Your task to perform on an android device: Open display settings Image 0: 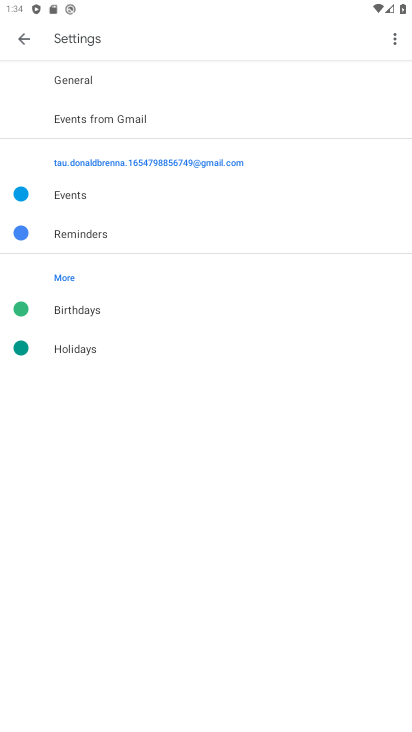
Step 0: press home button
Your task to perform on an android device: Open display settings Image 1: 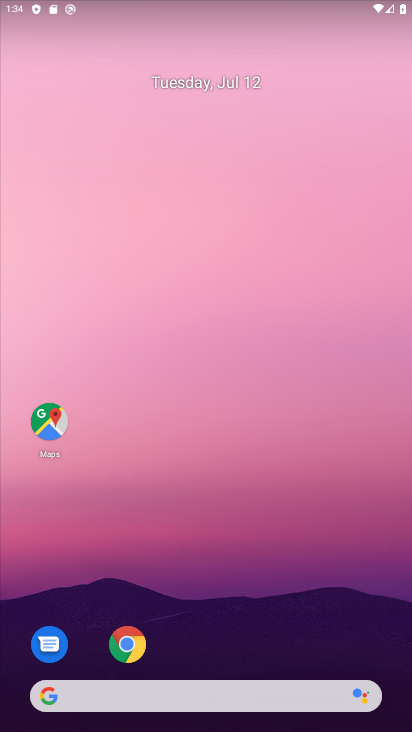
Step 1: drag from (192, 659) to (95, 134)
Your task to perform on an android device: Open display settings Image 2: 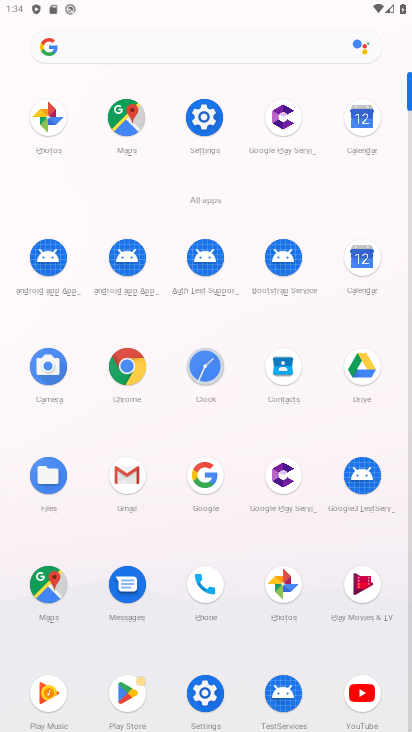
Step 2: click (206, 122)
Your task to perform on an android device: Open display settings Image 3: 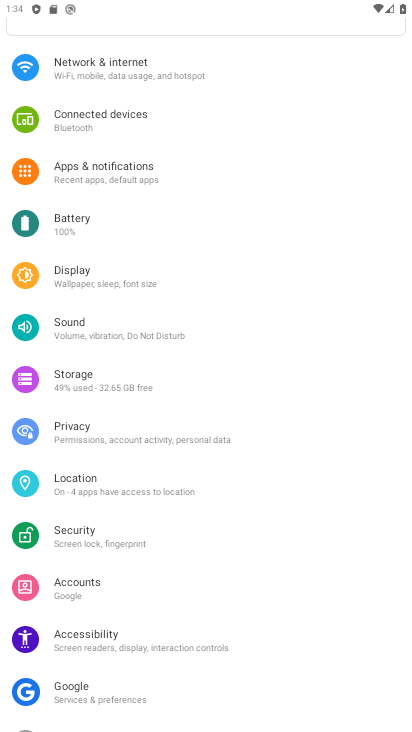
Step 3: click (109, 273)
Your task to perform on an android device: Open display settings Image 4: 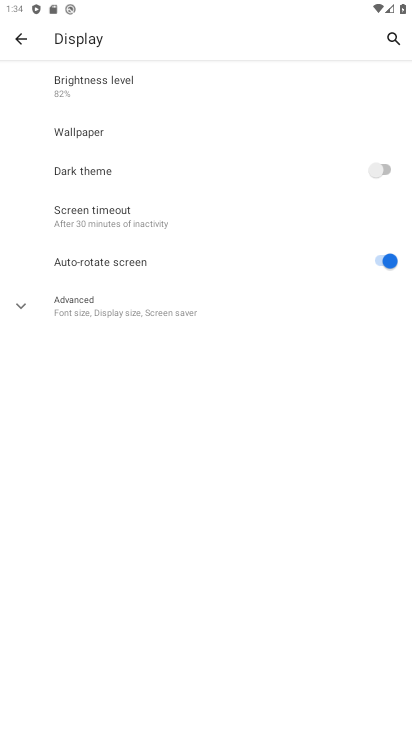
Step 4: click (121, 319)
Your task to perform on an android device: Open display settings Image 5: 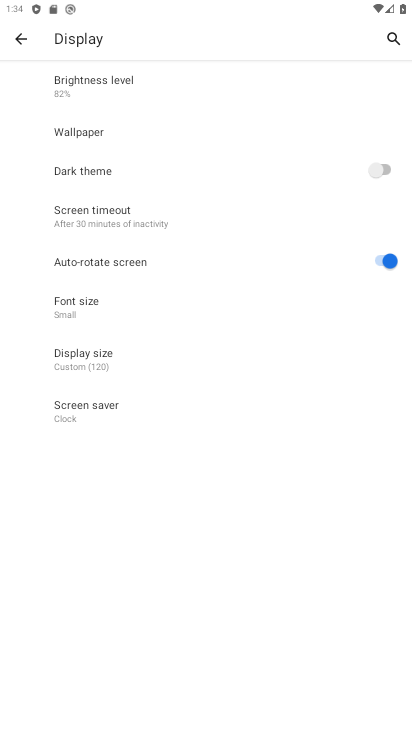
Step 5: task complete